Your task to perform on an android device: all mails in gmail Image 0: 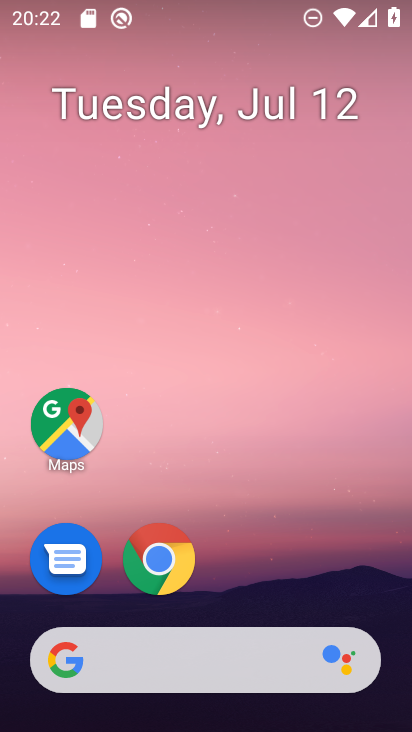
Step 0: drag from (335, 587) to (335, 65)
Your task to perform on an android device: all mails in gmail Image 1: 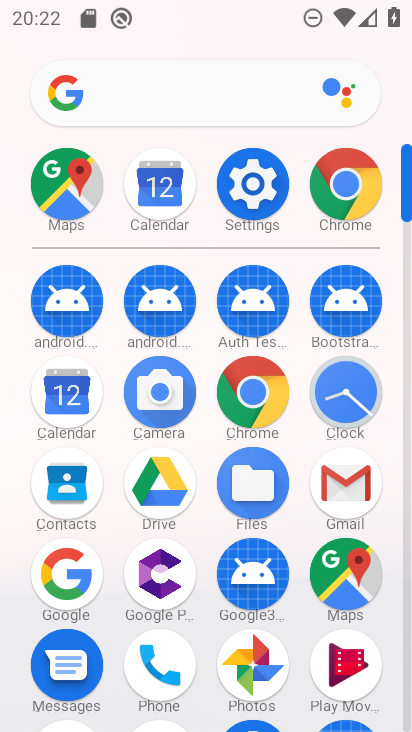
Step 1: click (351, 483)
Your task to perform on an android device: all mails in gmail Image 2: 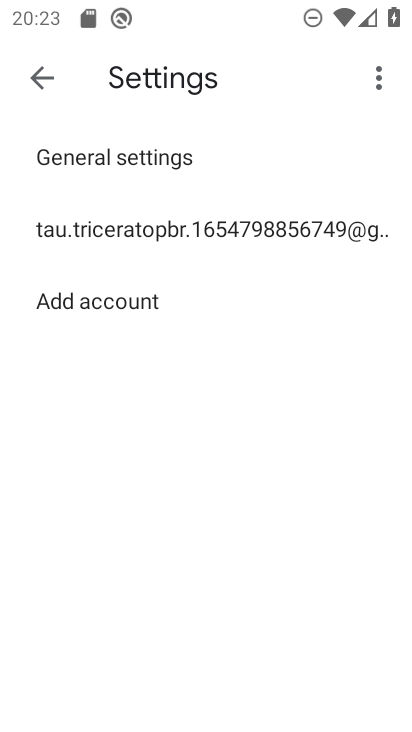
Step 2: press back button
Your task to perform on an android device: all mails in gmail Image 3: 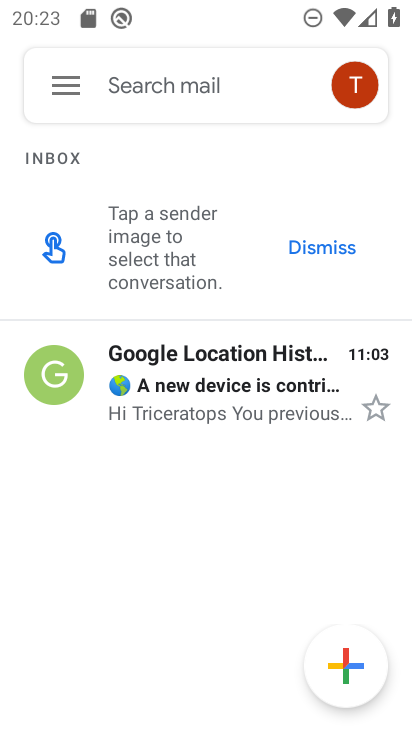
Step 3: click (66, 83)
Your task to perform on an android device: all mails in gmail Image 4: 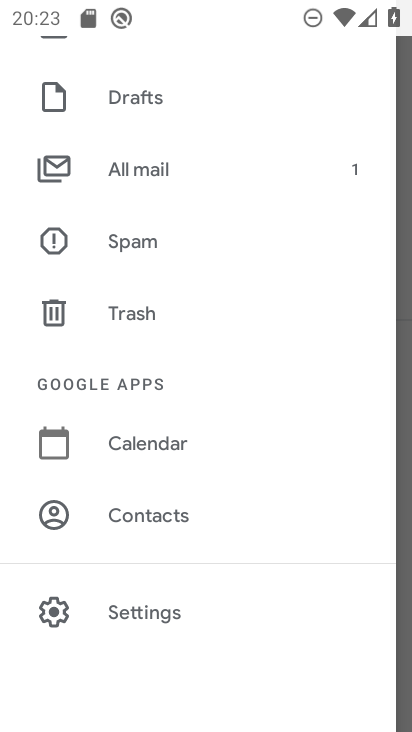
Step 4: drag from (274, 283) to (280, 384)
Your task to perform on an android device: all mails in gmail Image 5: 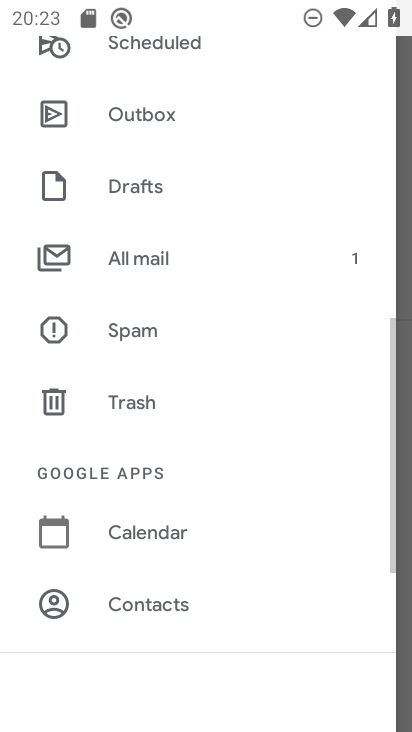
Step 5: drag from (278, 232) to (280, 352)
Your task to perform on an android device: all mails in gmail Image 6: 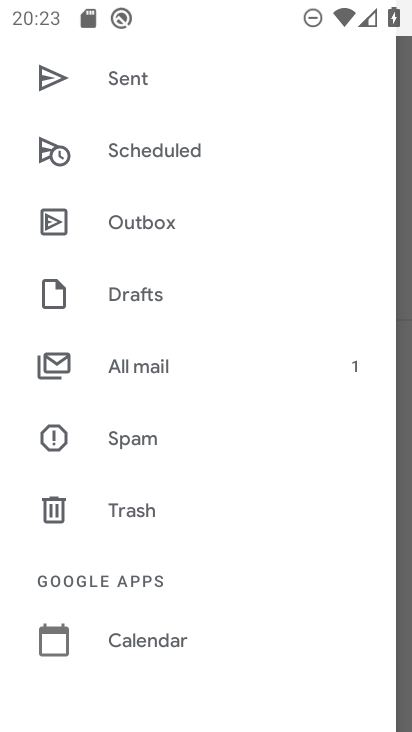
Step 6: drag from (285, 194) to (277, 392)
Your task to perform on an android device: all mails in gmail Image 7: 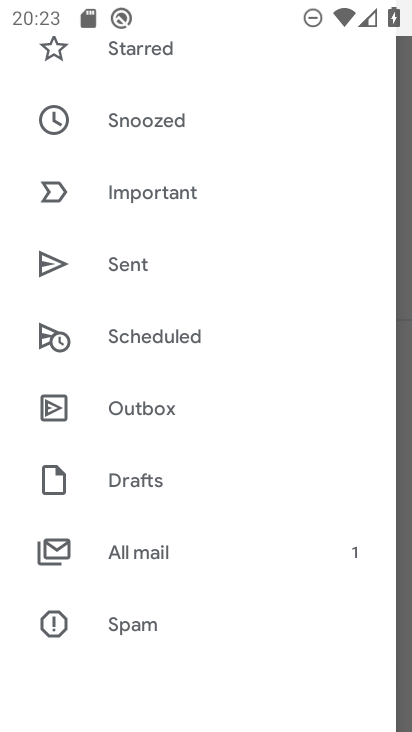
Step 7: drag from (274, 187) to (274, 327)
Your task to perform on an android device: all mails in gmail Image 8: 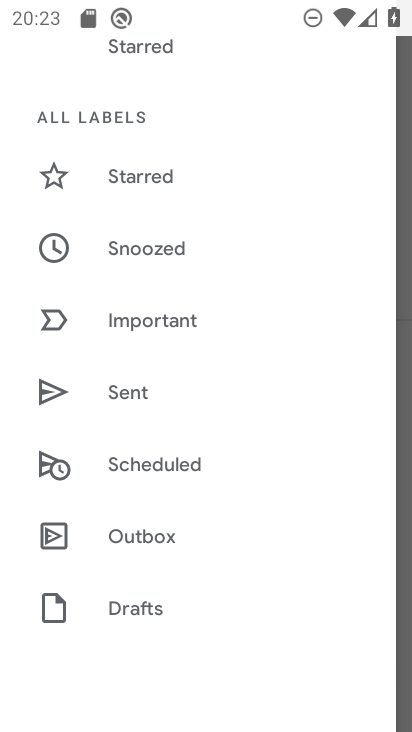
Step 8: drag from (274, 400) to (291, 132)
Your task to perform on an android device: all mails in gmail Image 9: 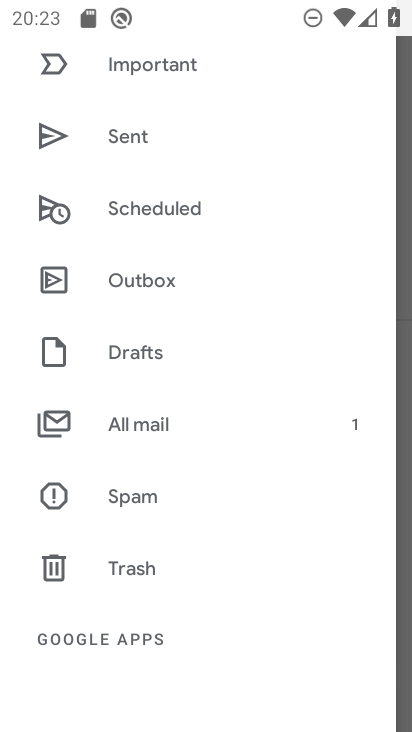
Step 9: drag from (268, 367) to (268, 220)
Your task to perform on an android device: all mails in gmail Image 10: 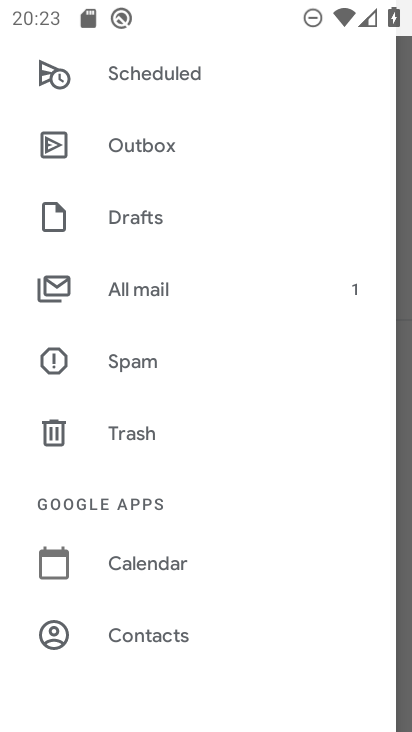
Step 10: click (179, 298)
Your task to perform on an android device: all mails in gmail Image 11: 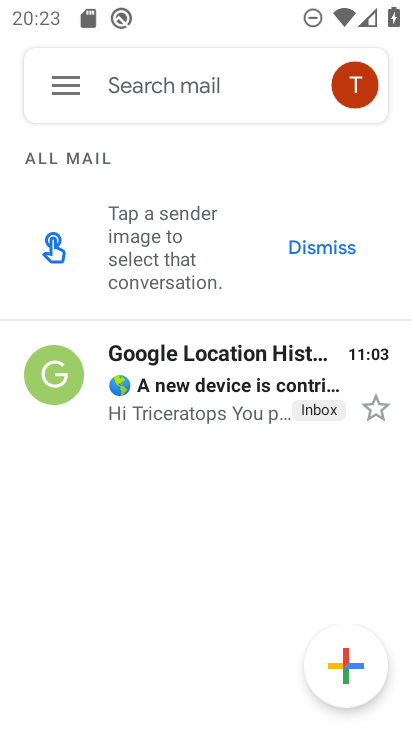
Step 11: task complete